Your task to perform on an android device: Search for macbook pro on amazon, select the first entry, add it to the cart, then select checkout. Image 0: 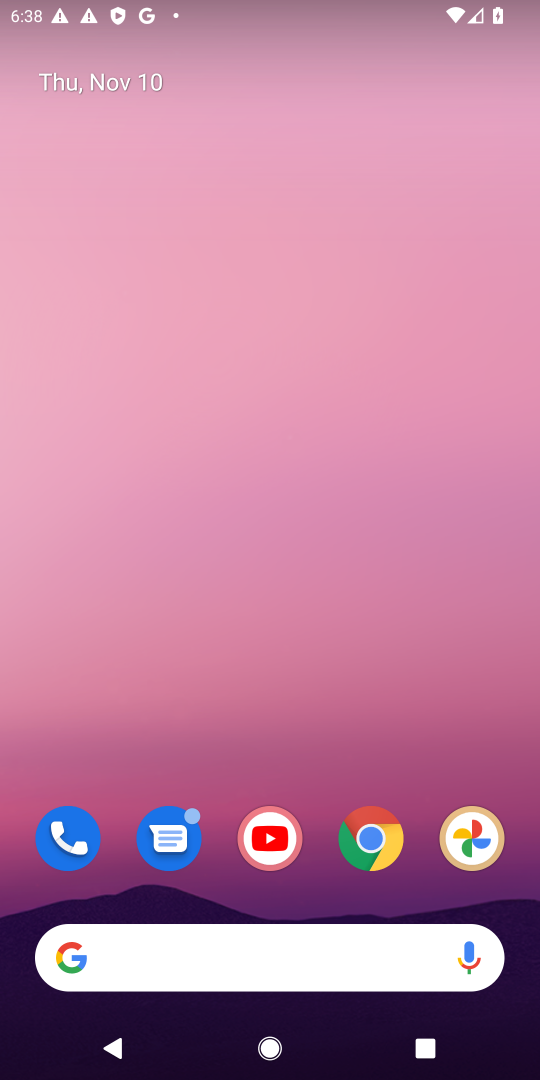
Step 0: drag from (325, 894) to (448, 0)
Your task to perform on an android device: Search for macbook pro on amazon, select the first entry, add it to the cart, then select checkout. Image 1: 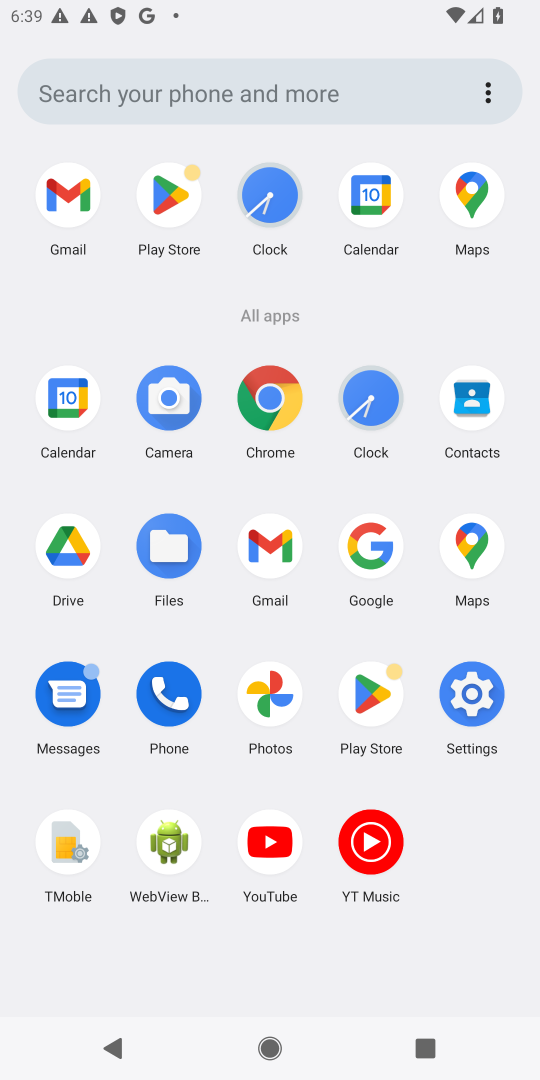
Step 1: click (280, 403)
Your task to perform on an android device: Search for macbook pro on amazon, select the first entry, add it to the cart, then select checkout. Image 2: 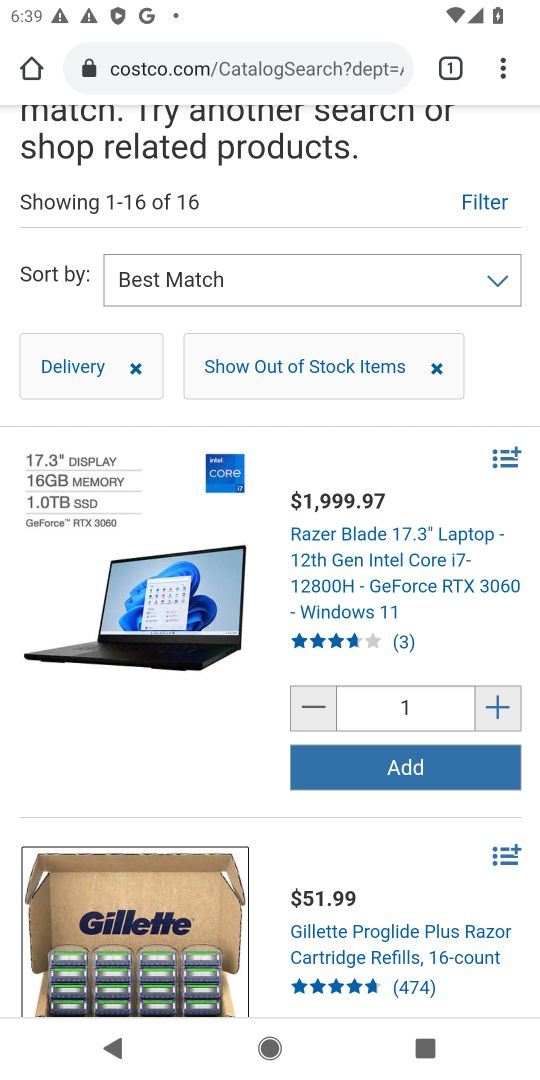
Step 2: click (296, 65)
Your task to perform on an android device: Search for macbook pro on amazon, select the first entry, add it to the cart, then select checkout. Image 3: 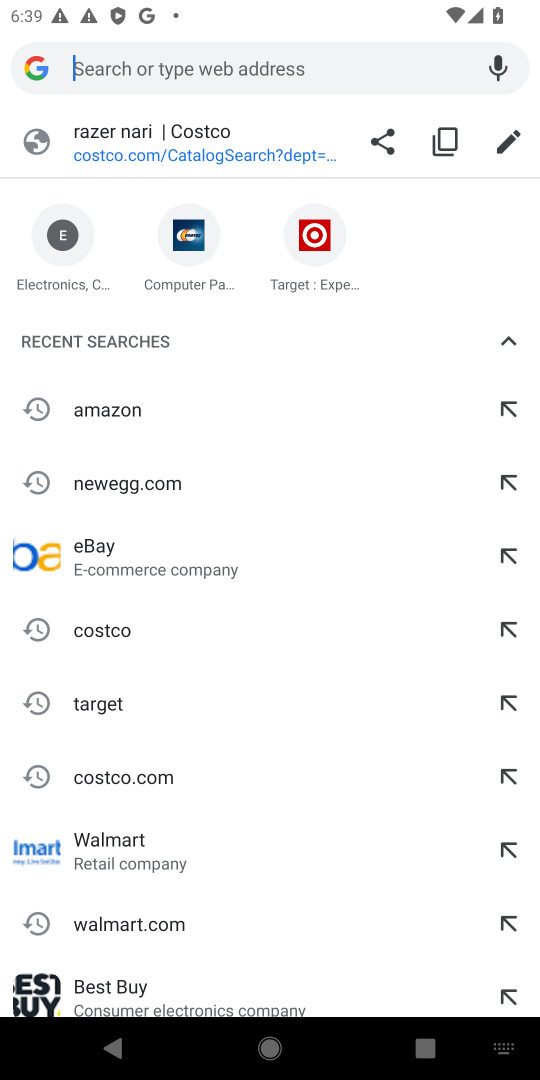
Step 3: type "amazon.com"
Your task to perform on an android device: Search for macbook pro on amazon, select the first entry, add it to the cart, then select checkout. Image 4: 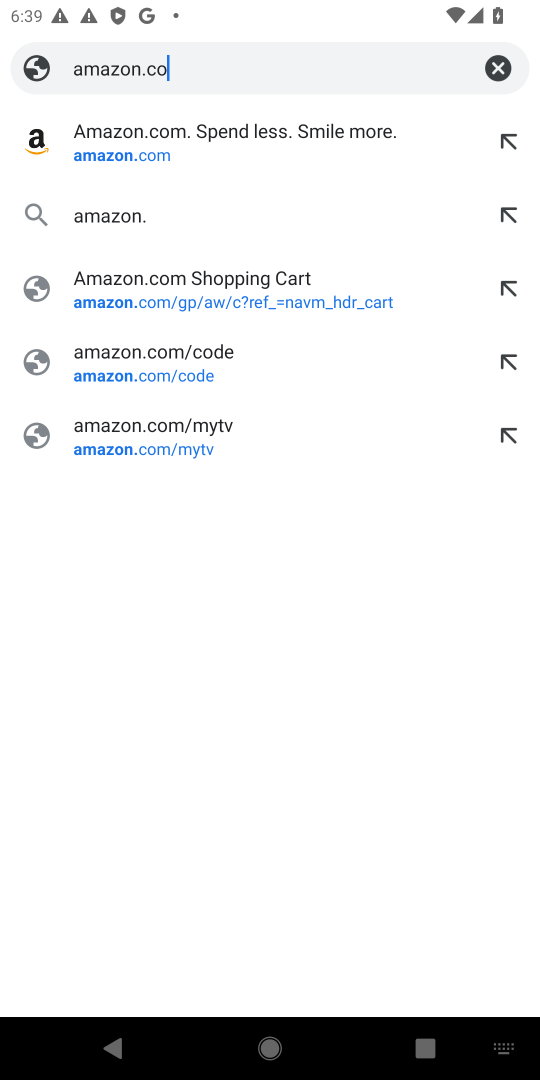
Step 4: press enter
Your task to perform on an android device: Search for macbook pro on amazon, select the first entry, add it to the cart, then select checkout. Image 5: 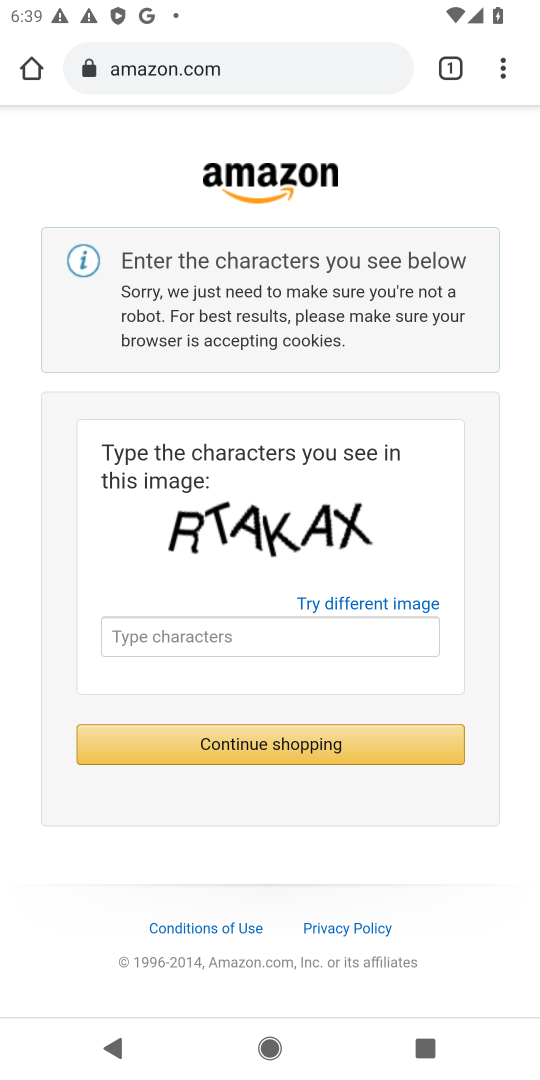
Step 5: click (353, 644)
Your task to perform on an android device: Search for macbook pro on amazon, select the first entry, add it to the cart, then select checkout. Image 6: 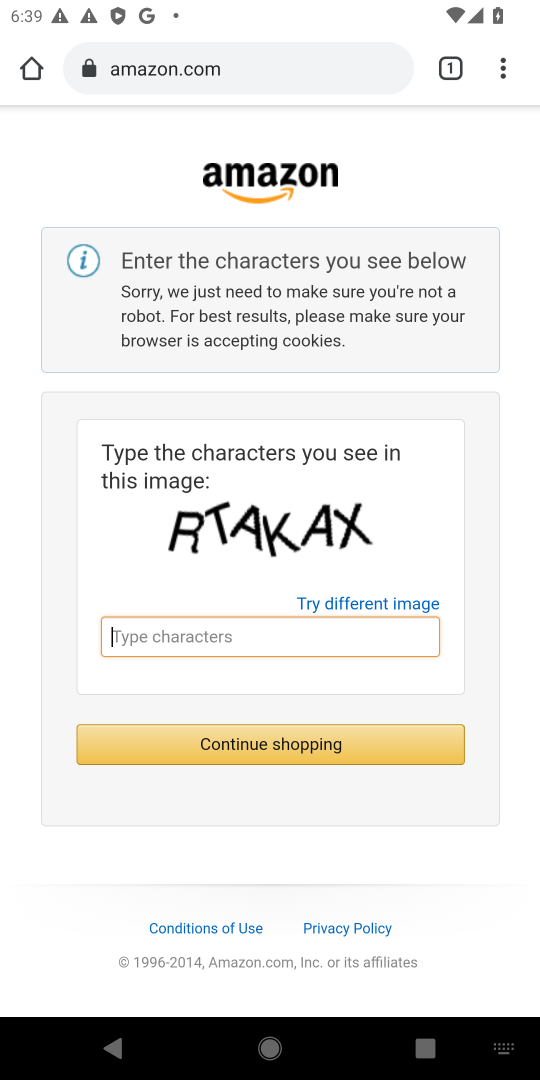
Step 6: type "RTAKAX"
Your task to perform on an android device: Search for macbook pro on amazon, select the first entry, add it to the cart, then select checkout. Image 7: 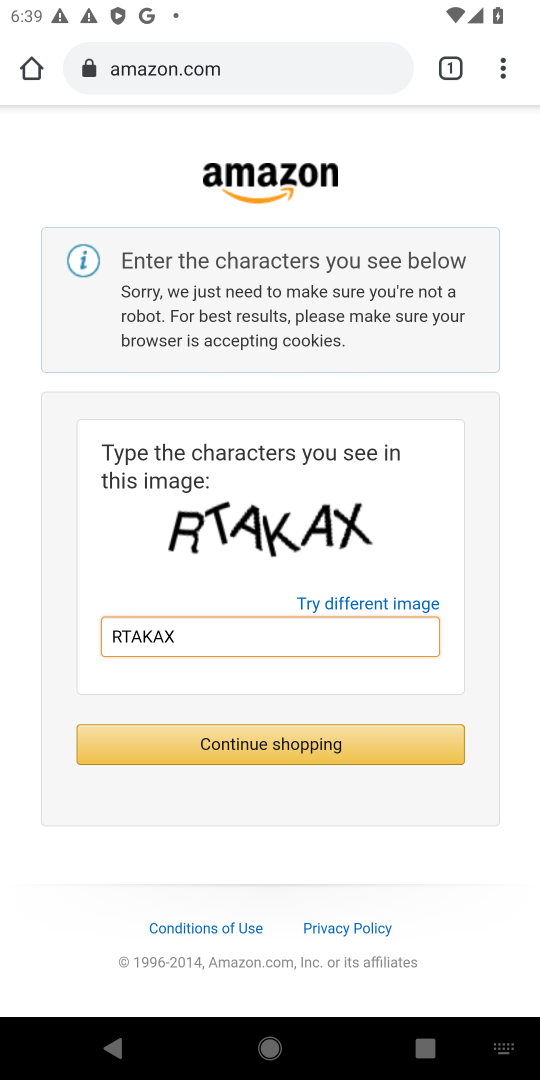
Step 7: click (170, 756)
Your task to perform on an android device: Search for macbook pro on amazon, select the first entry, add it to the cart, then select checkout. Image 8: 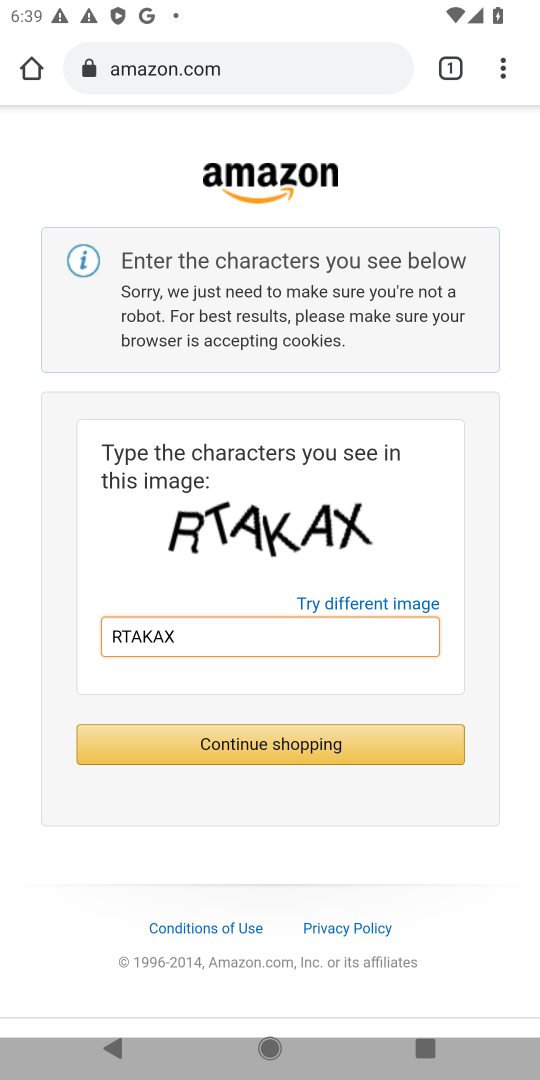
Step 8: click (175, 746)
Your task to perform on an android device: Search for macbook pro on amazon, select the first entry, add it to the cart, then select checkout. Image 9: 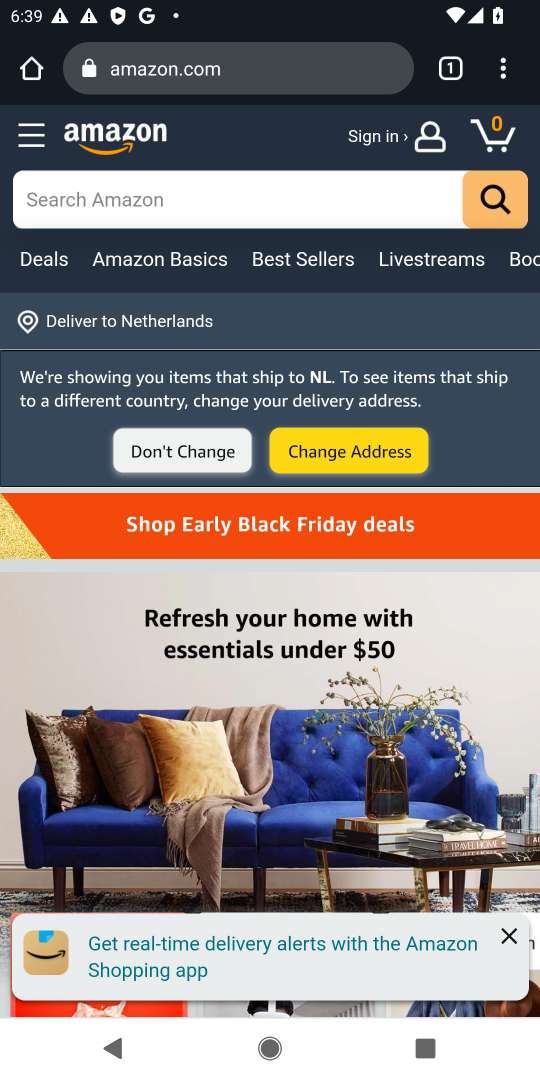
Step 9: click (293, 195)
Your task to perform on an android device: Search for macbook pro on amazon, select the first entry, add it to the cart, then select checkout. Image 10: 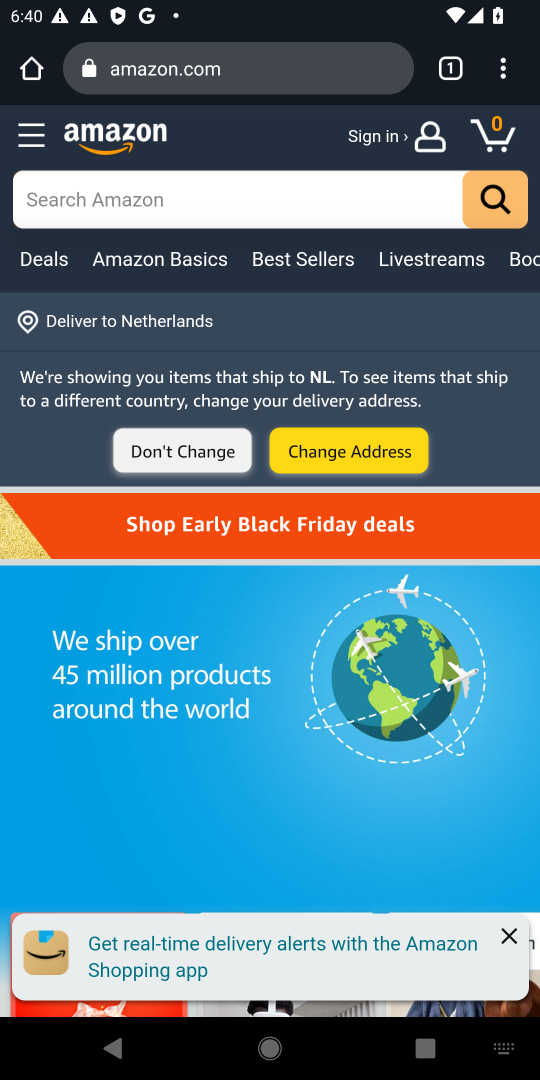
Step 10: type "m"
Your task to perform on an android device: Search for macbook pro on amazon, select the first entry, add it to the cart, then select checkout. Image 11: 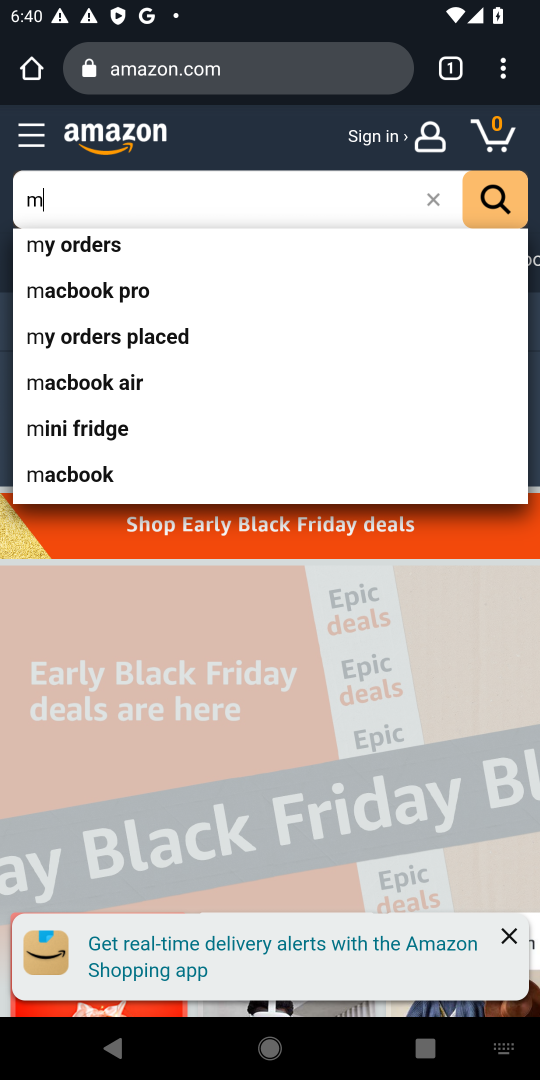
Step 11: type "acbook pro"
Your task to perform on an android device: Search for macbook pro on amazon, select the first entry, add it to the cart, then select checkout. Image 12: 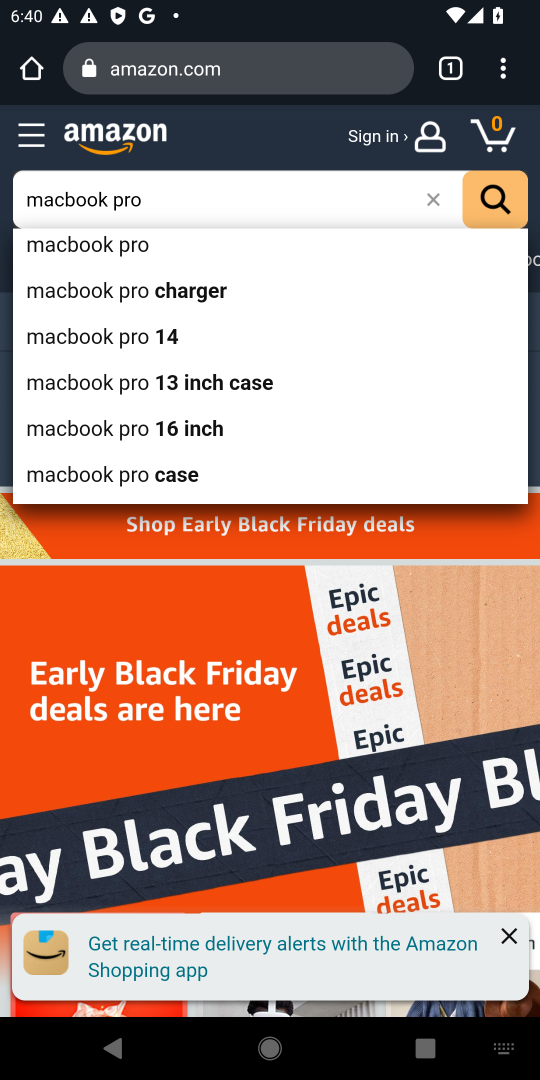
Step 12: press enter
Your task to perform on an android device: Search for macbook pro on amazon, select the first entry, add it to the cart, then select checkout. Image 13: 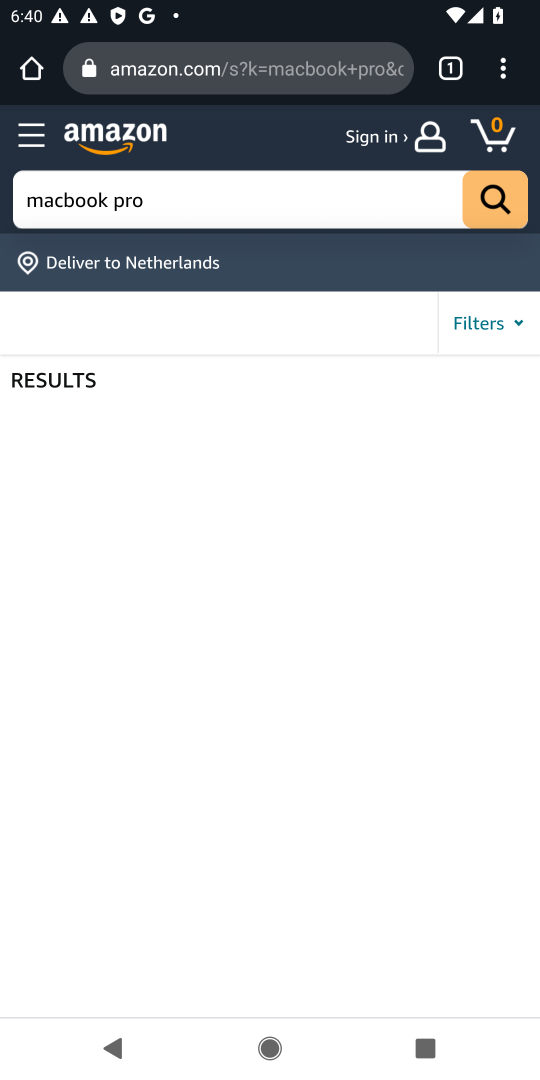
Step 13: drag from (330, 944) to (336, 558)
Your task to perform on an android device: Search for macbook pro on amazon, select the first entry, add it to the cart, then select checkout. Image 14: 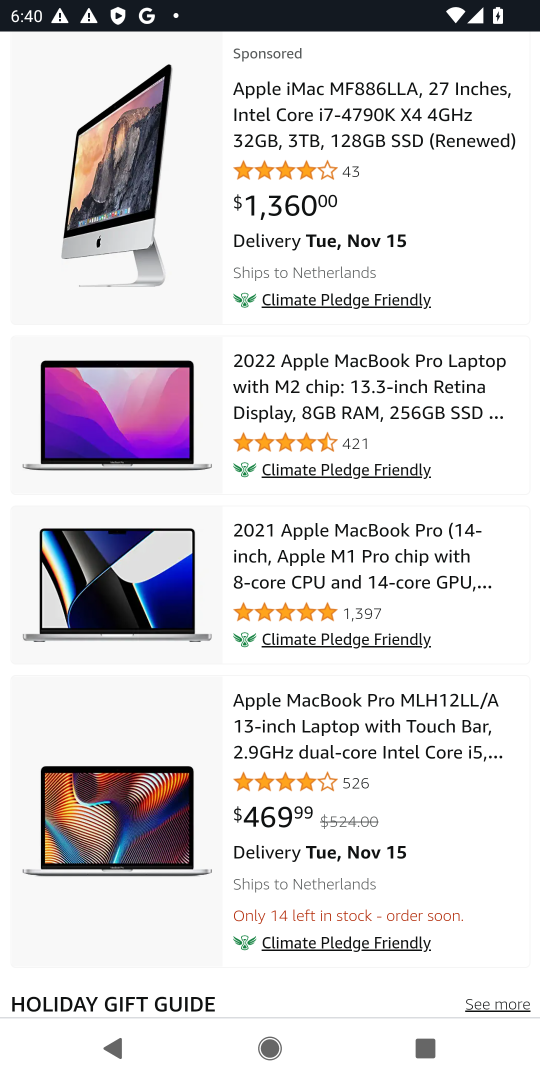
Step 14: click (367, 368)
Your task to perform on an android device: Search for macbook pro on amazon, select the first entry, add it to the cart, then select checkout. Image 15: 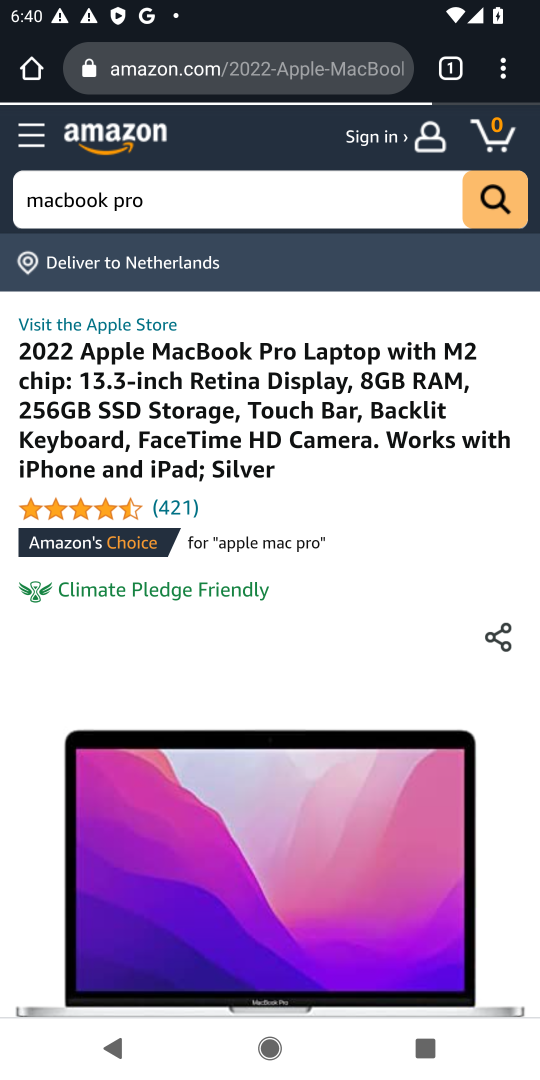
Step 15: drag from (312, 815) to (390, 73)
Your task to perform on an android device: Search for macbook pro on amazon, select the first entry, add it to the cart, then select checkout. Image 16: 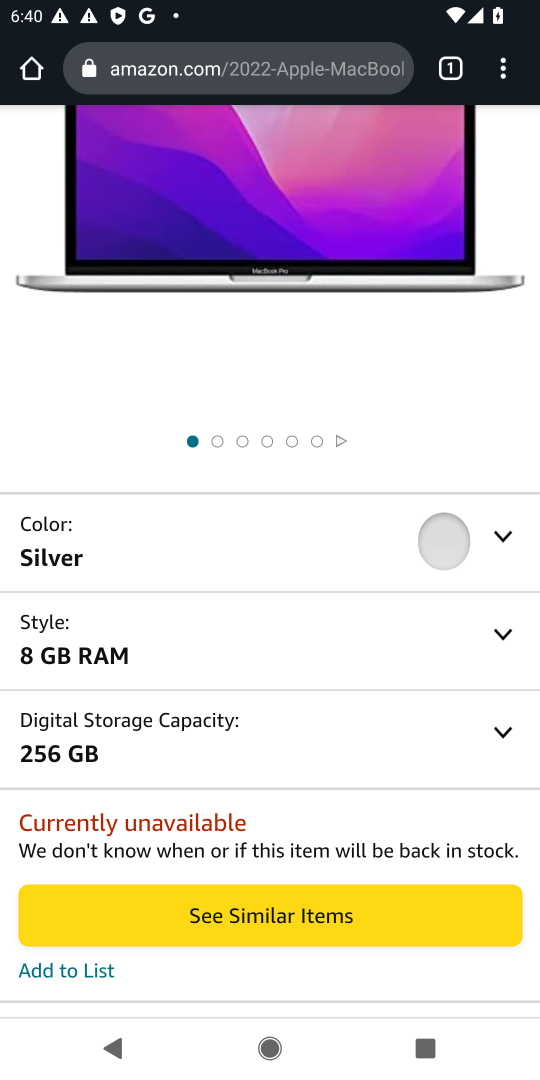
Step 16: drag from (313, 687) to (377, 31)
Your task to perform on an android device: Search for macbook pro on amazon, select the first entry, add it to the cart, then select checkout. Image 17: 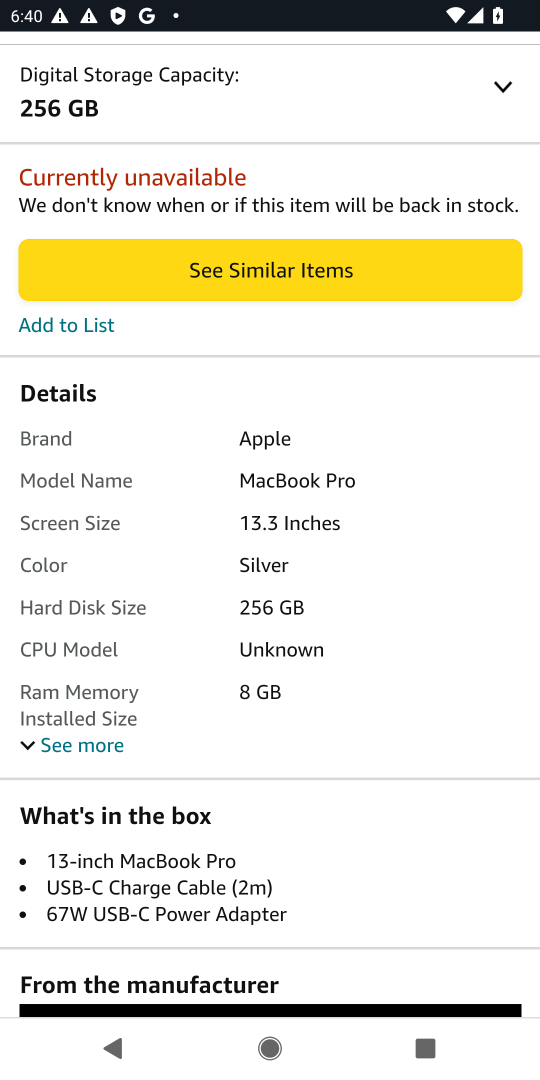
Step 17: drag from (275, 826) to (412, 54)
Your task to perform on an android device: Search for macbook pro on amazon, select the first entry, add it to the cart, then select checkout. Image 18: 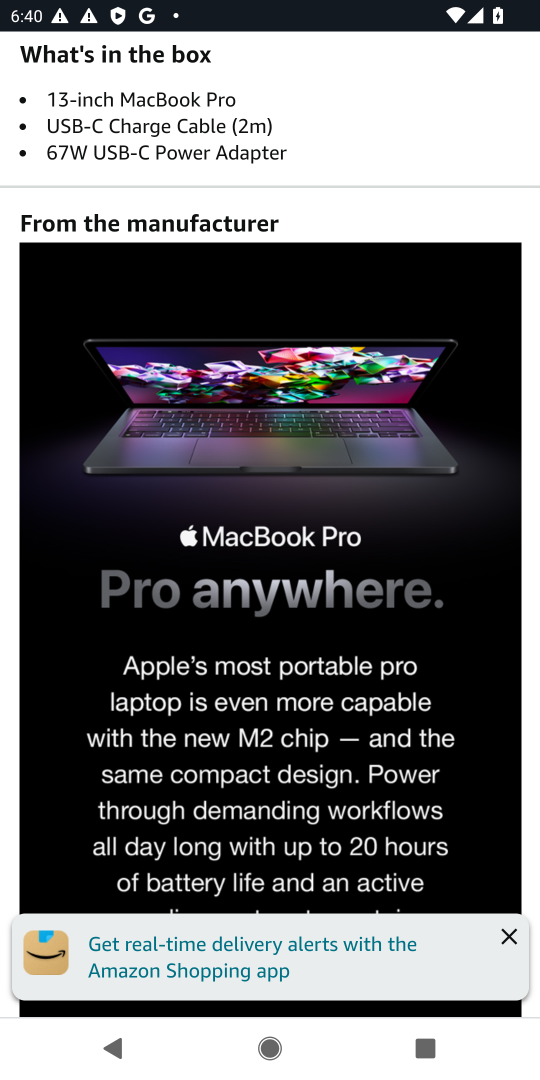
Step 18: drag from (223, 708) to (343, 49)
Your task to perform on an android device: Search for macbook pro on amazon, select the first entry, add it to the cart, then select checkout. Image 19: 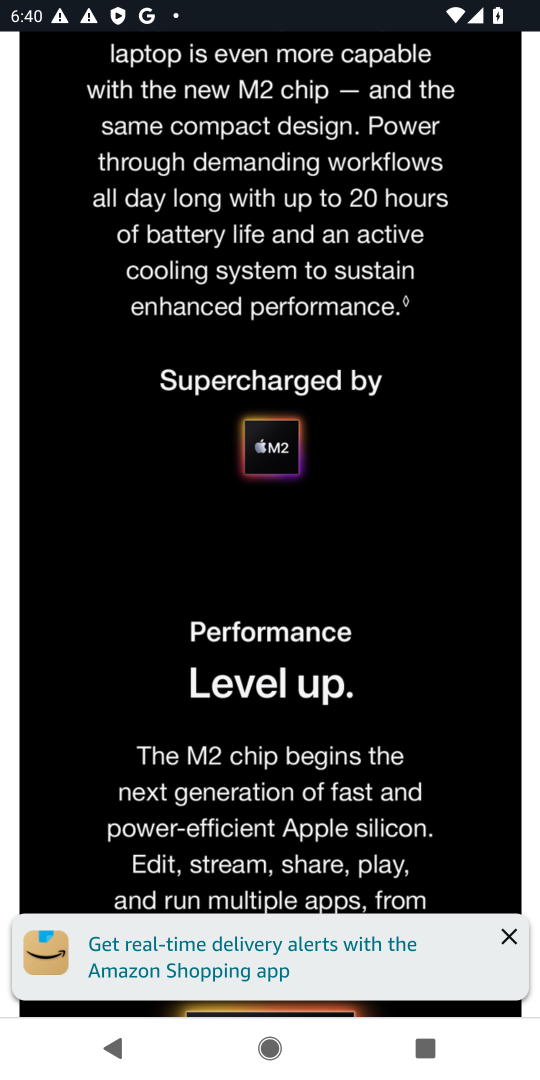
Step 19: drag from (258, 777) to (351, 77)
Your task to perform on an android device: Search for macbook pro on amazon, select the first entry, add it to the cart, then select checkout. Image 20: 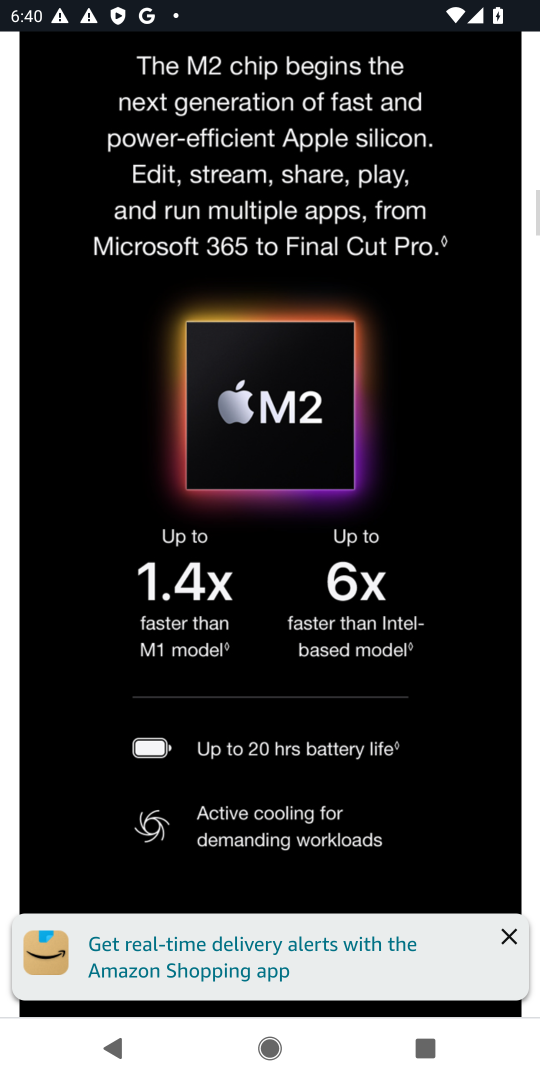
Step 20: drag from (270, 729) to (297, 52)
Your task to perform on an android device: Search for macbook pro on amazon, select the first entry, add it to the cart, then select checkout. Image 21: 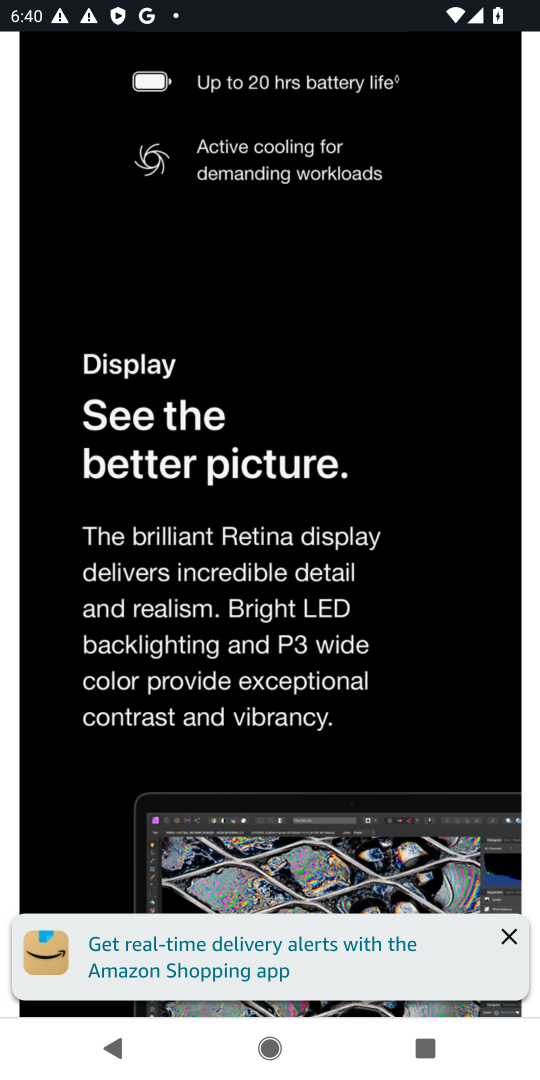
Step 21: drag from (259, 785) to (330, 77)
Your task to perform on an android device: Search for macbook pro on amazon, select the first entry, add it to the cart, then select checkout. Image 22: 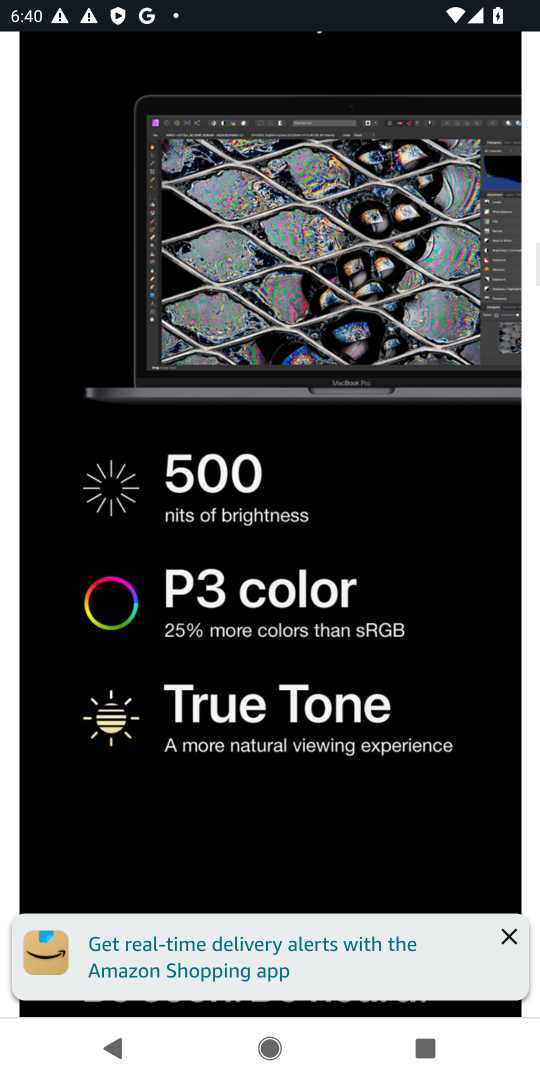
Step 22: drag from (235, 782) to (322, 145)
Your task to perform on an android device: Search for macbook pro on amazon, select the first entry, add it to the cart, then select checkout. Image 23: 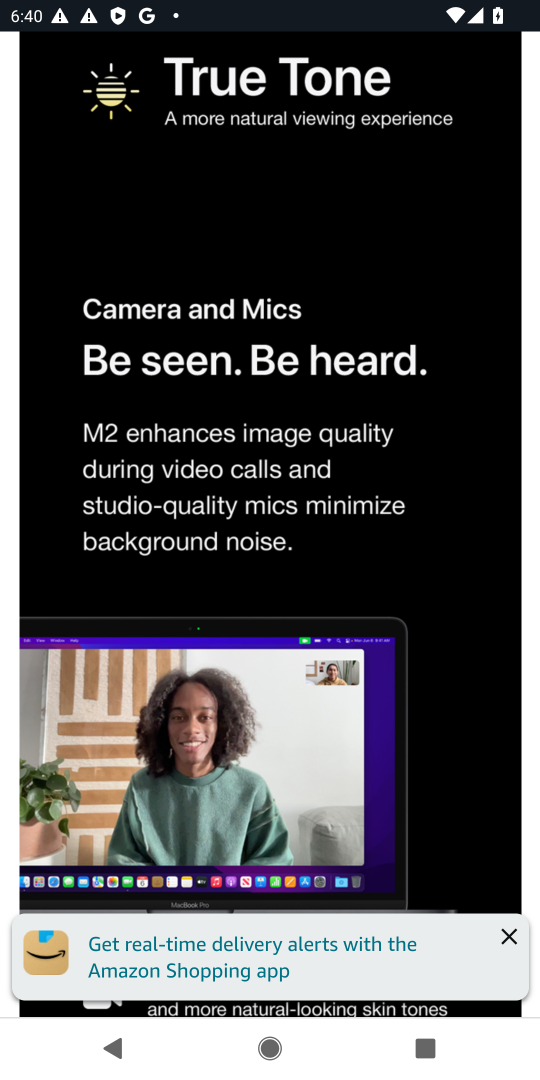
Step 23: drag from (256, 843) to (357, 74)
Your task to perform on an android device: Search for macbook pro on amazon, select the first entry, add it to the cart, then select checkout. Image 24: 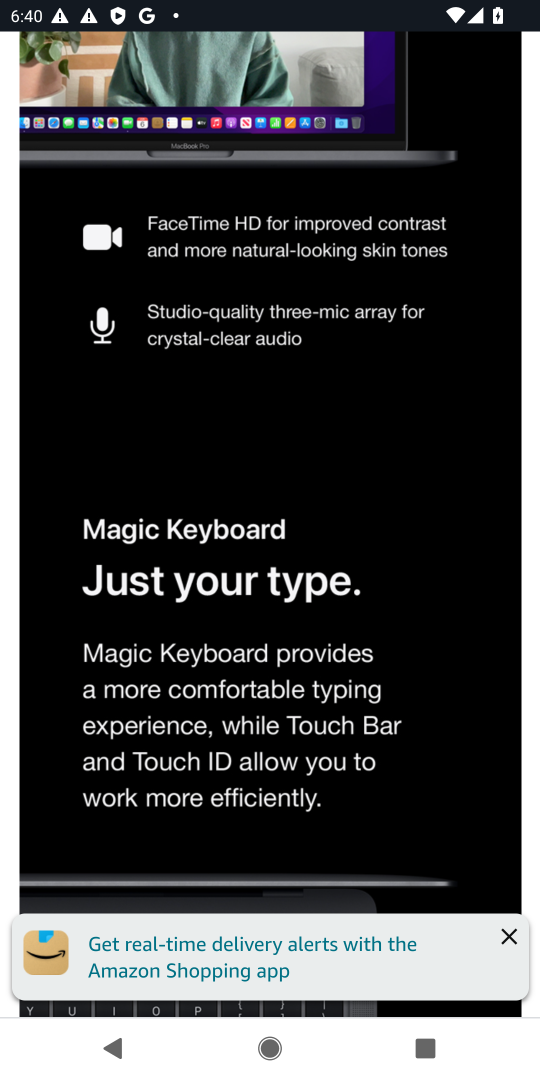
Step 24: drag from (221, 834) to (273, 106)
Your task to perform on an android device: Search for macbook pro on amazon, select the first entry, add it to the cart, then select checkout. Image 25: 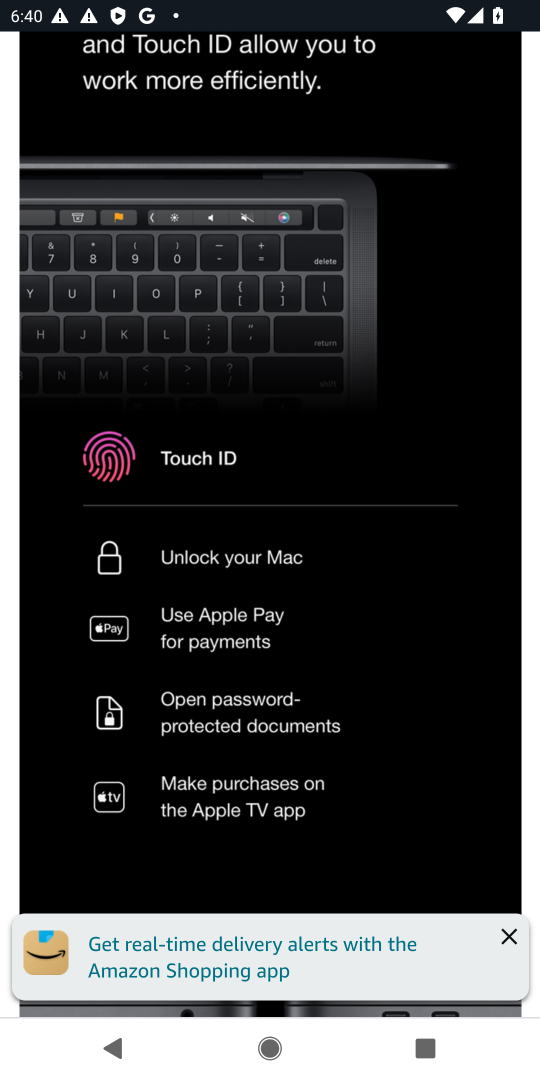
Step 25: drag from (167, 835) to (234, 91)
Your task to perform on an android device: Search for macbook pro on amazon, select the first entry, add it to the cart, then select checkout. Image 26: 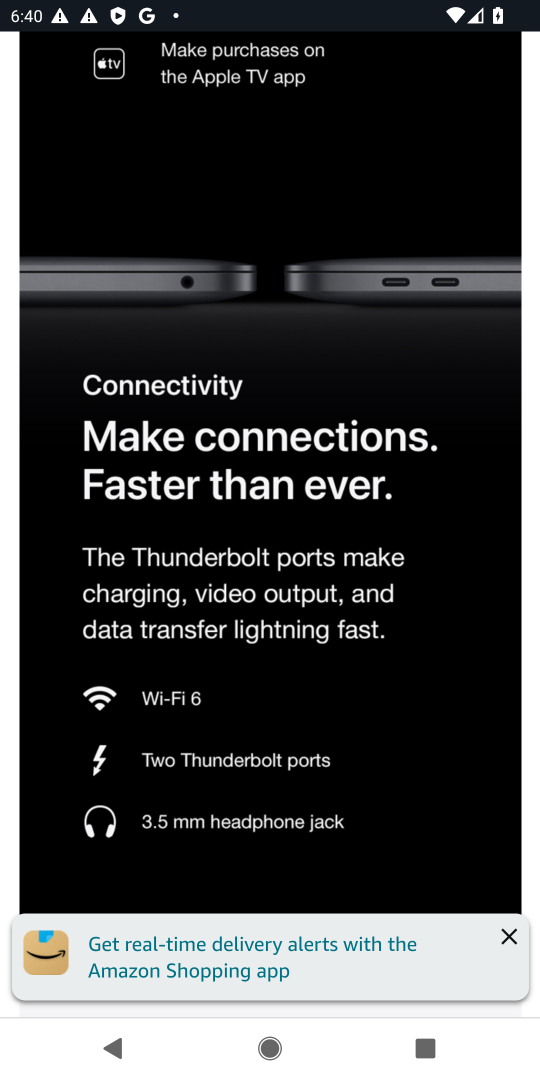
Step 26: drag from (252, 755) to (287, 221)
Your task to perform on an android device: Search for macbook pro on amazon, select the first entry, add it to the cart, then select checkout. Image 27: 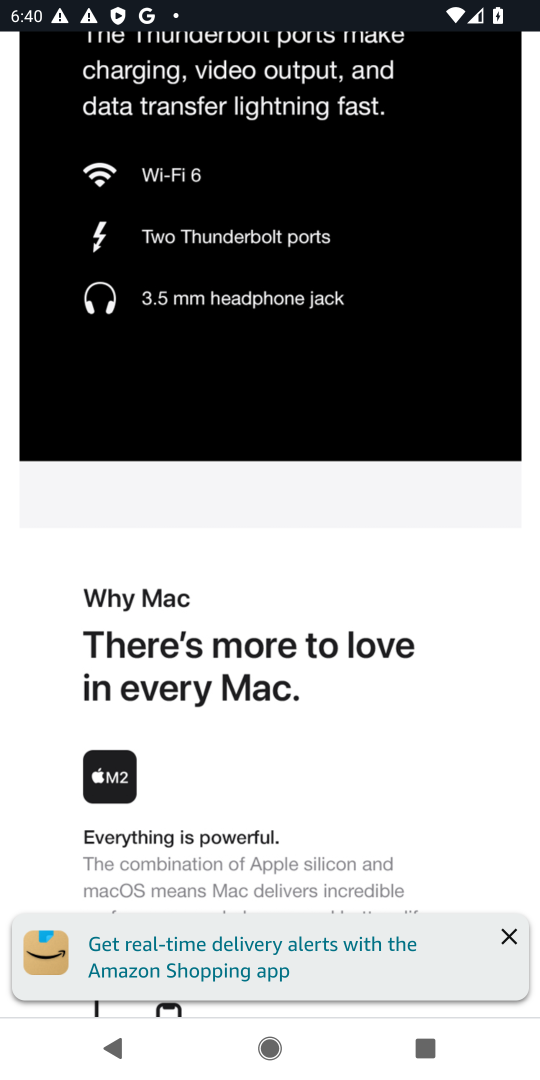
Step 27: drag from (205, 819) to (285, 201)
Your task to perform on an android device: Search for macbook pro on amazon, select the first entry, add it to the cart, then select checkout. Image 28: 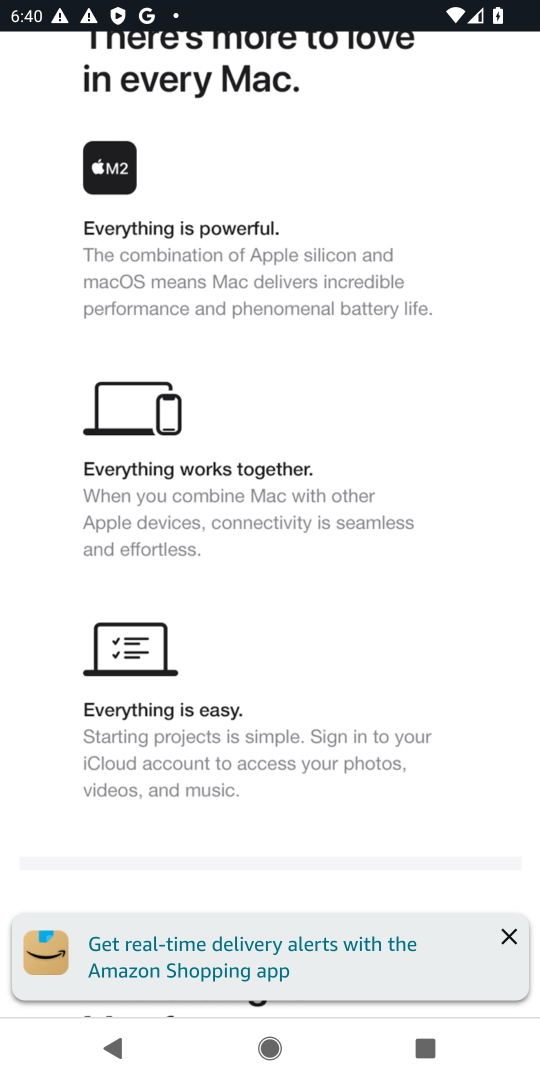
Step 28: drag from (227, 760) to (240, 117)
Your task to perform on an android device: Search for macbook pro on amazon, select the first entry, add it to the cart, then select checkout. Image 29: 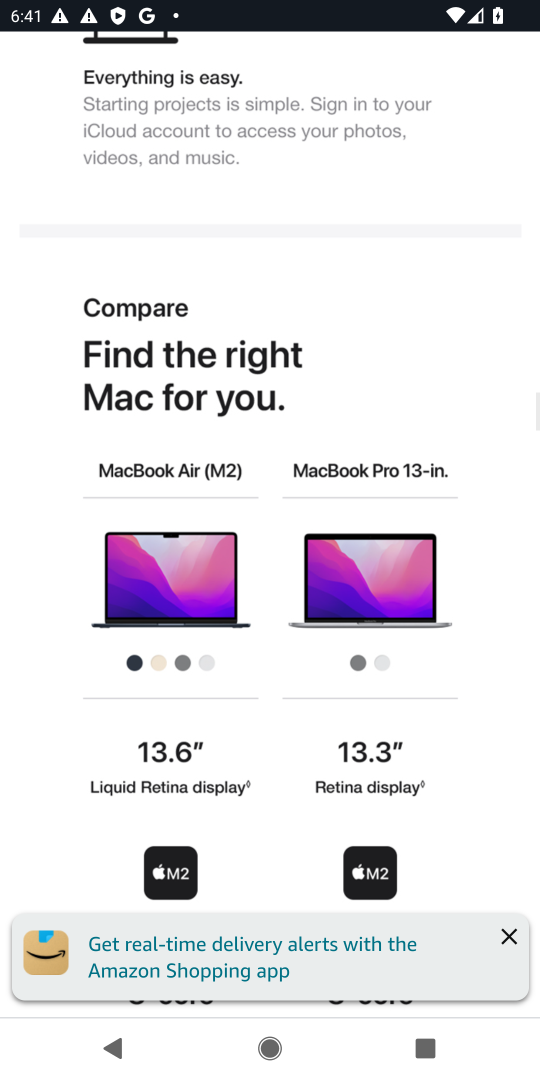
Step 29: drag from (119, 865) to (215, 143)
Your task to perform on an android device: Search for macbook pro on amazon, select the first entry, add it to the cart, then select checkout. Image 30: 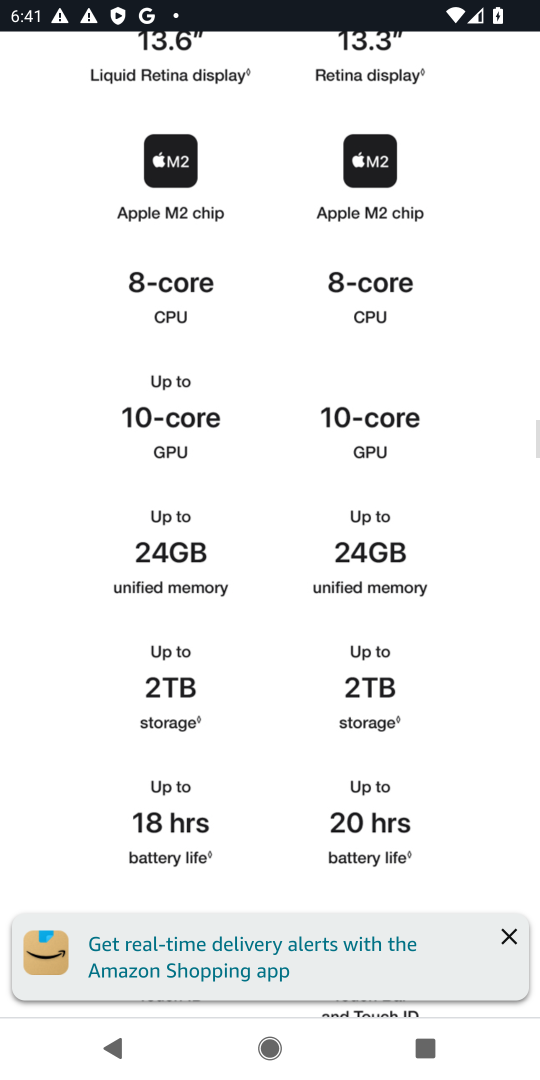
Step 30: drag from (230, 784) to (242, 118)
Your task to perform on an android device: Search for macbook pro on amazon, select the first entry, add it to the cart, then select checkout. Image 31: 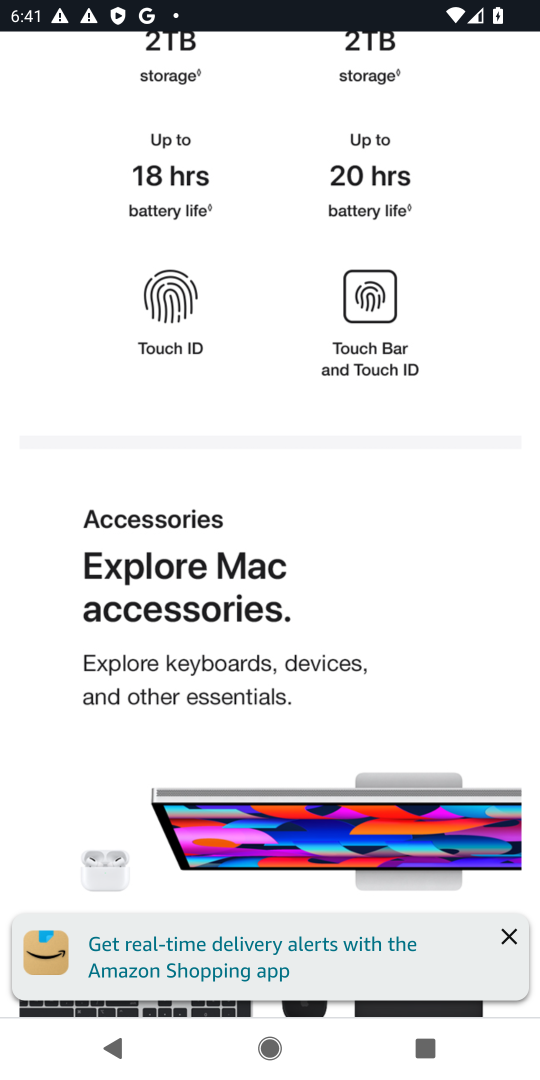
Step 31: drag from (237, 745) to (377, 138)
Your task to perform on an android device: Search for macbook pro on amazon, select the first entry, add it to the cart, then select checkout. Image 32: 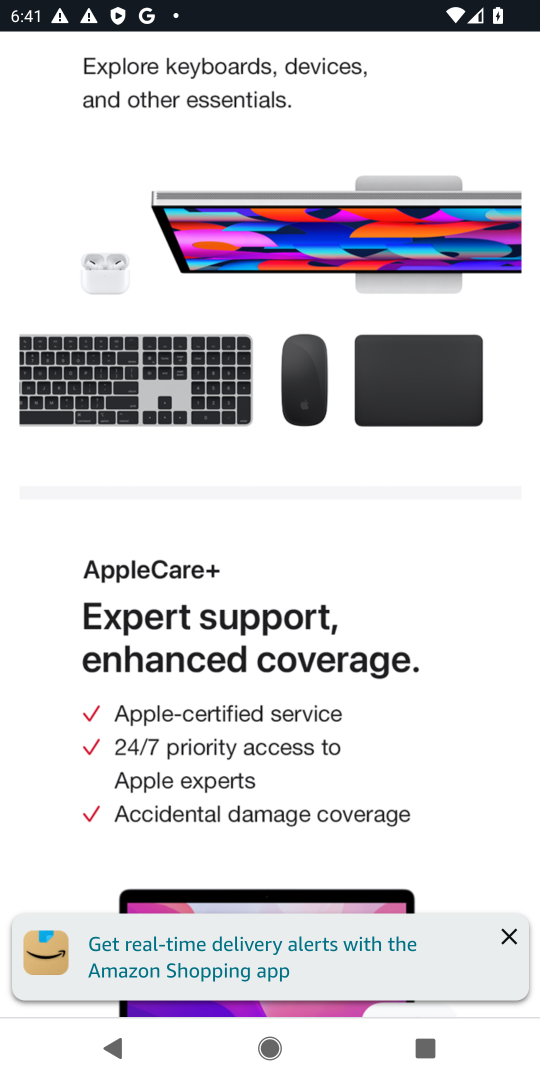
Step 32: drag from (318, 831) to (319, 142)
Your task to perform on an android device: Search for macbook pro on amazon, select the first entry, add it to the cart, then select checkout. Image 33: 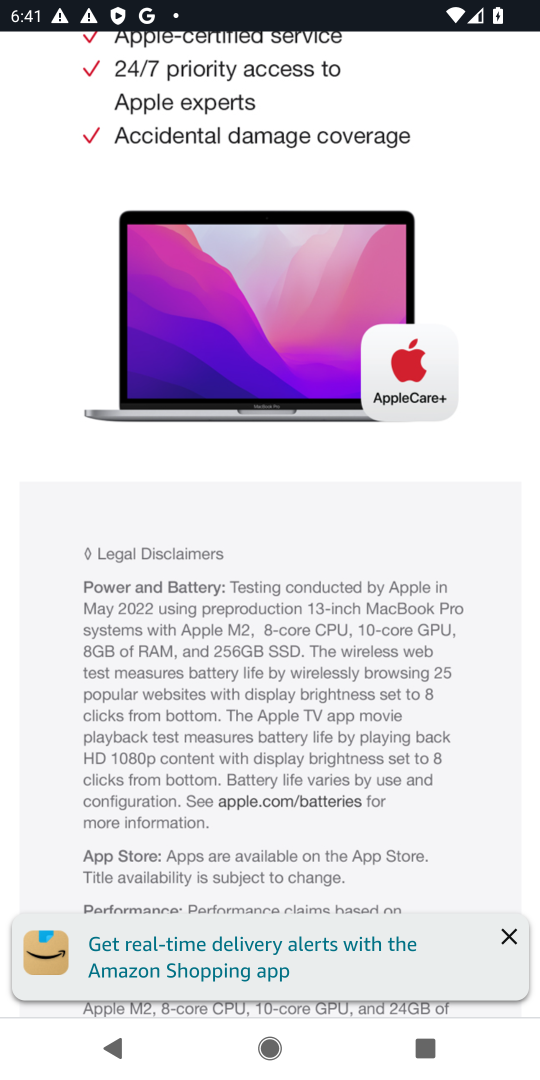
Step 33: drag from (334, 873) to (363, 197)
Your task to perform on an android device: Search for macbook pro on amazon, select the first entry, add it to the cart, then select checkout. Image 34: 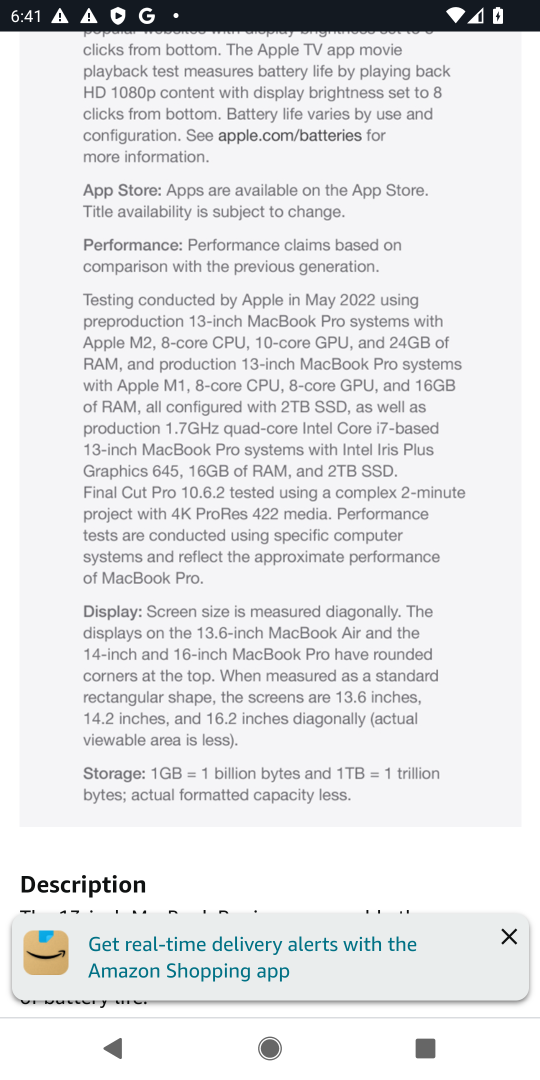
Step 34: drag from (313, 837) to (309, 239)
Your task to perform on an android device: Search for macbook pro on amazon, select the first entry, add it to the cart, then select checkout. Image 35: 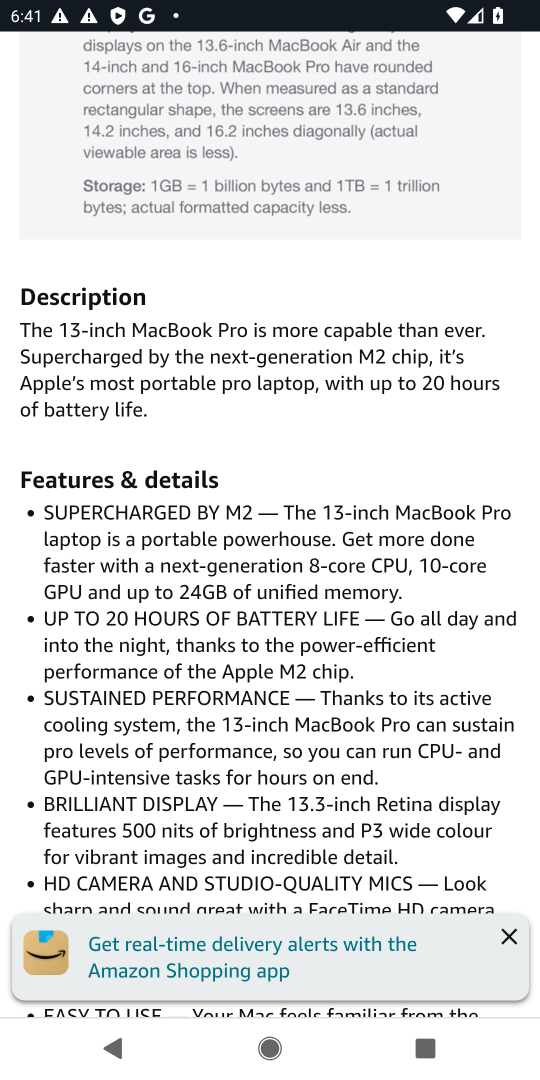
Step 35: drag from (255, 785) to (294, 269)
Your task to perform on an android device: Search for macbook pro on amazon, select the first entry, add it to the cart, then select checkout. Image 36: 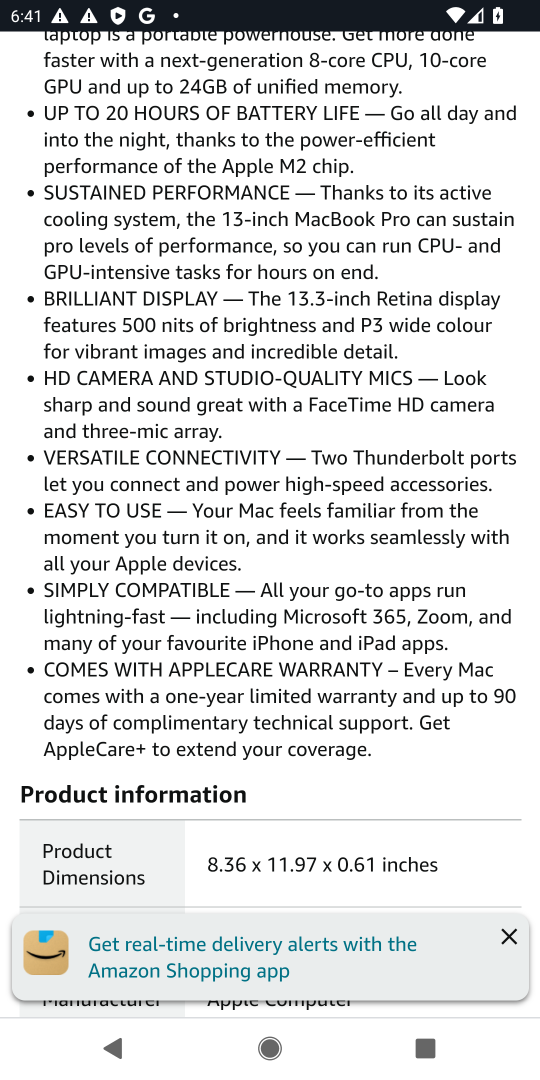
Step 36: click (509, 939)
Your task to perform on an android device: Search for macbook pro on amazon, select the first entry, add it to the cart, then select checkout. Image 37: 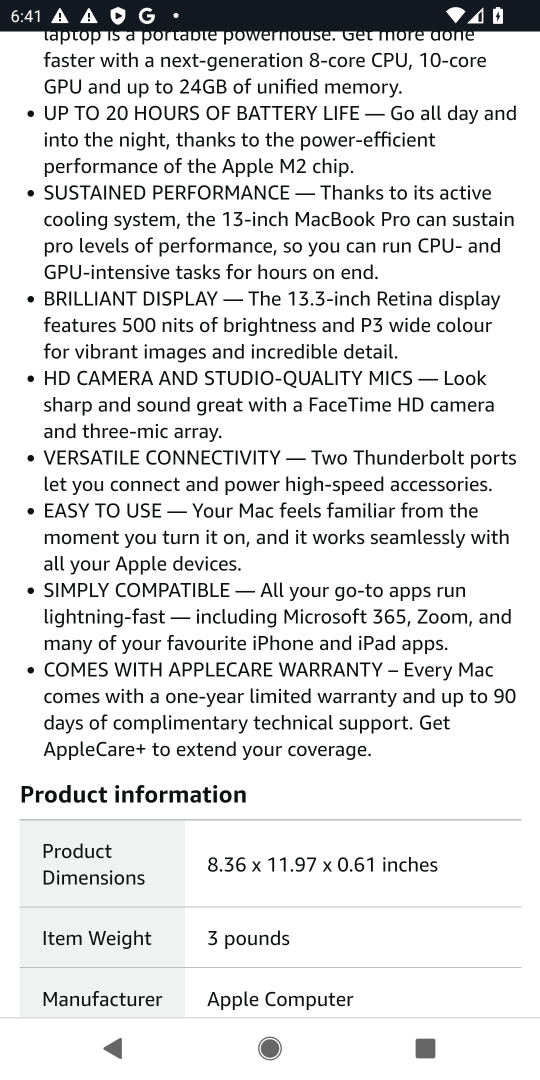
Step 37: task complete